Your task to perform on an android device: When is my next meeting? Image 0: 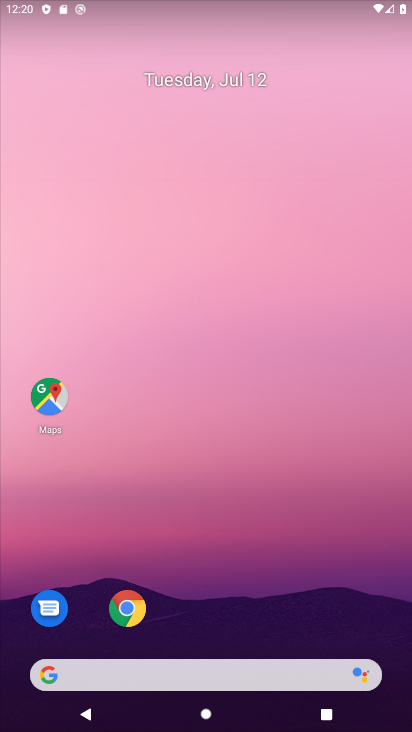
Step 0: drag from (249, 710) to (127, 190)
Your task to perform on an android device: When is my next meeting? Image 1: 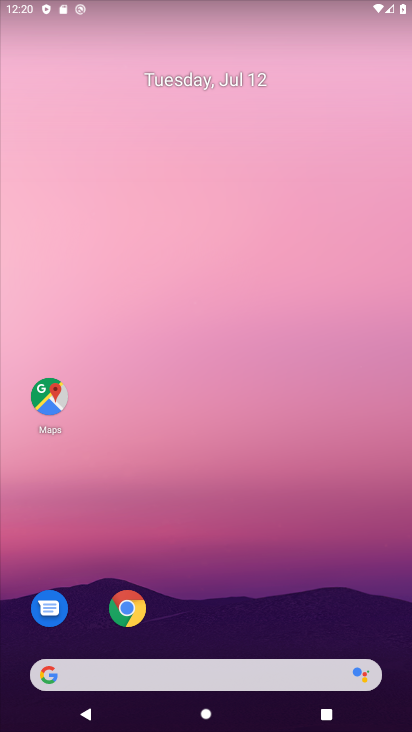
Step 1: drag from (232, 667) to (256, 372)
Your task to perform on an android device: When is my next meeting? Image 2: 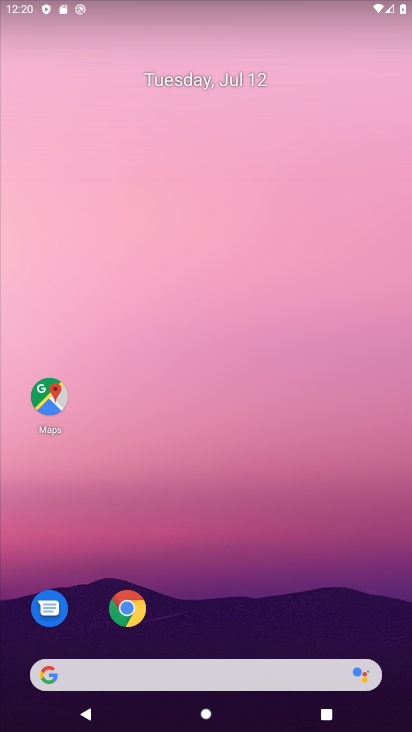
Step 2: drag from (298, 57) to (339, 52)
Your task to perform on an android device: When is my next meeting? Image 3: 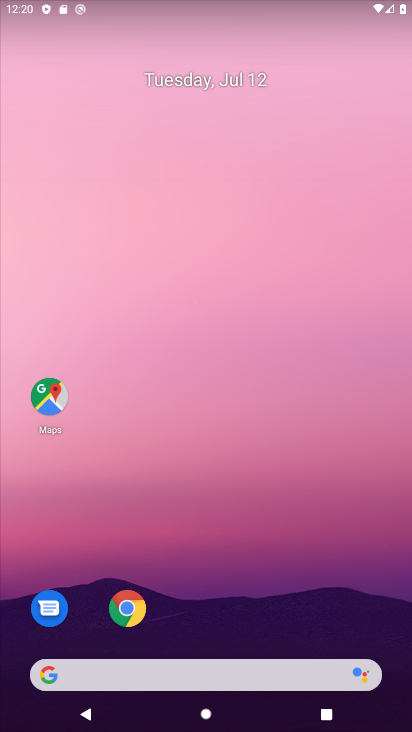
Step 3: drag from (283, 298) to (258, 153)
Your task to perform on an android device: When is my next meeting? Image 4: 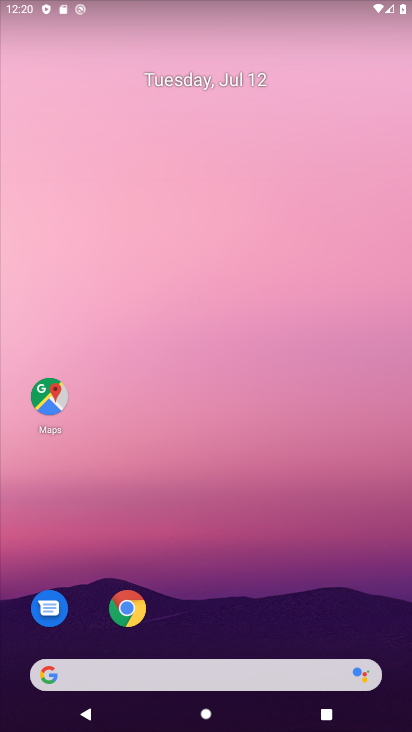
Step 4: drag from (240, 342) to (190, 91)
Your task to perform on an android device: When is my next meeting? Image 5: 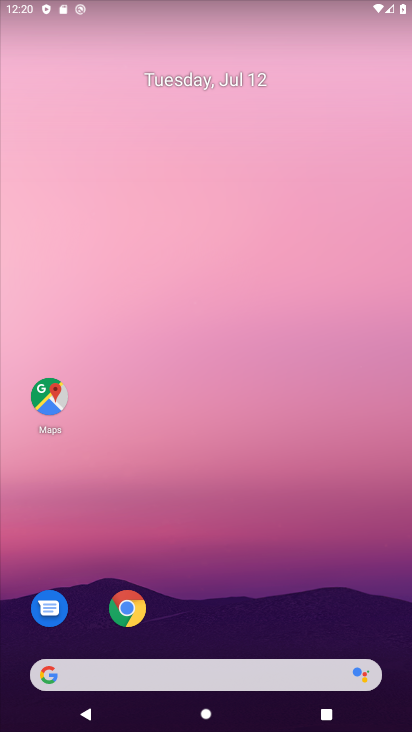
Step 5: drag from (193, 589) to (133, 109)
Your task to perform on an android device: When is my next meeting? Image 6: 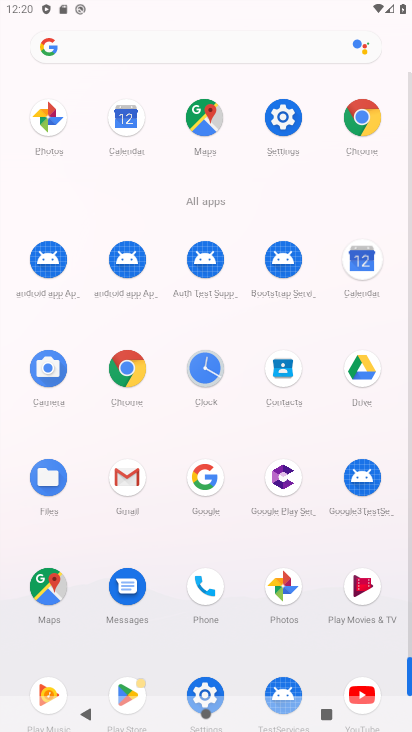
Step 6: click (289, 126)
Your task to perform on an android device: When is my next meeting? Image 7: 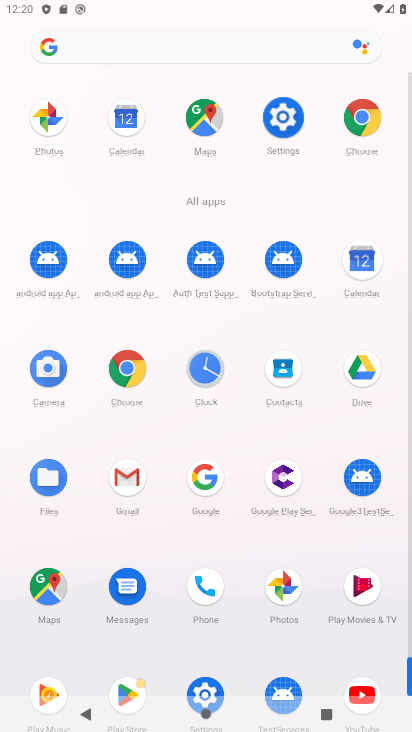
Step 7: click (289, 124)
Your task to perform on an android device: When is my next meeting? Image 8: 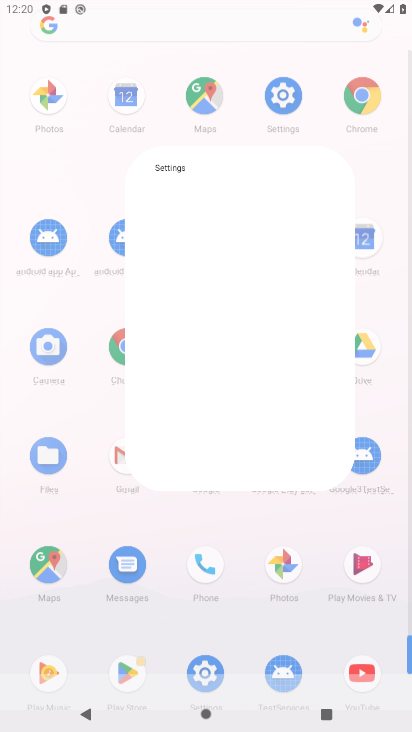
Step 8: click (289, 124)
Your task to perform on an android device: When is my next meeting? Image 9: 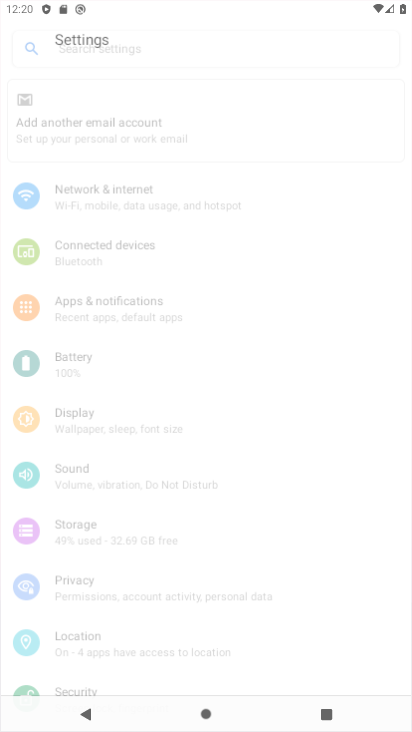
Step 9: click (289, 124)
Your task to perform on an android device: When is my next meeting? Image 10: 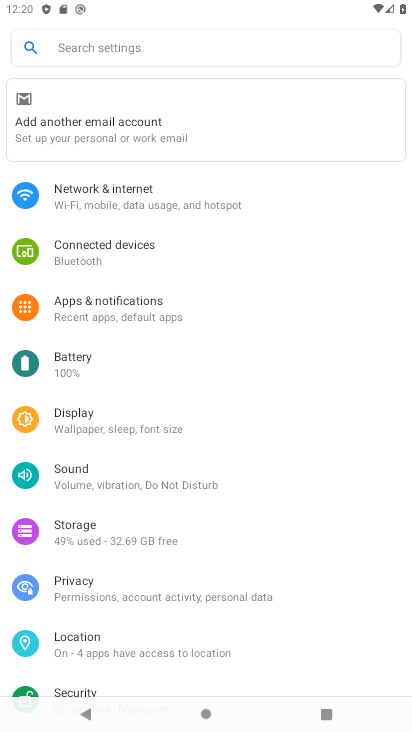
Step 10: press back button
Your task to perform on an android device: When is my next meeting? Image 11: 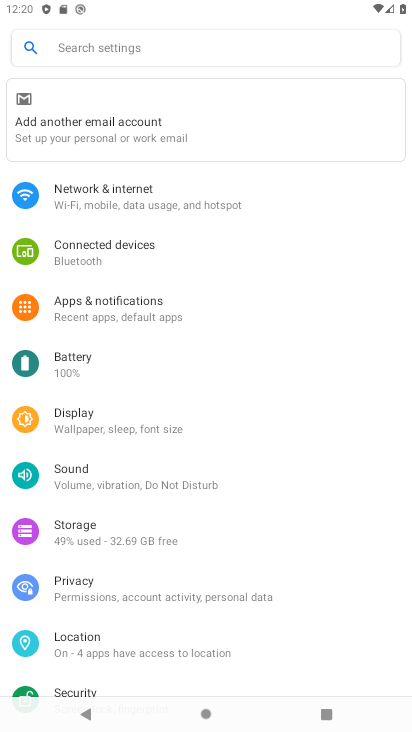
Step 11: press back button
Your task to perform on an android device: When is my next meeting? Image 12: 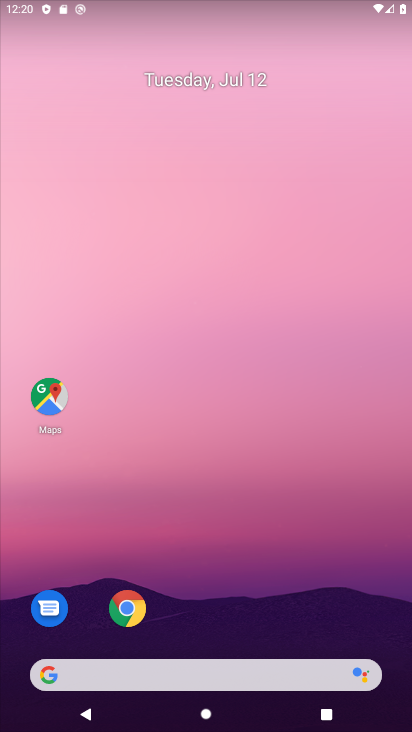
Step 12: drag from (288, 694) to (235, 14)
Your task to perform on an android device: When is my next meeting? Image 13: 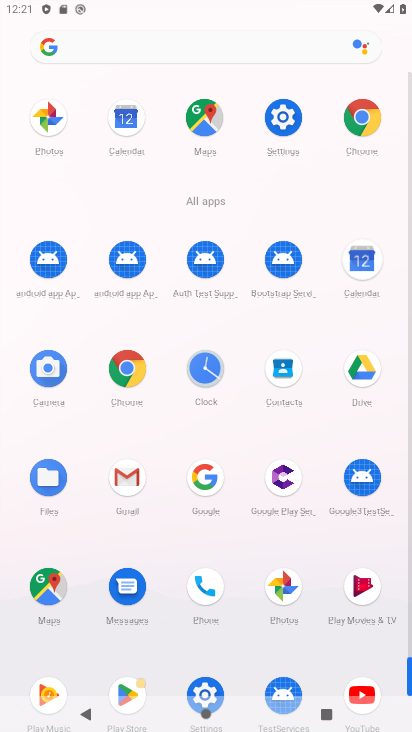
Step 13: click (358, 257)
Your task to perform on an android device: When is my next meeting? Image 14: 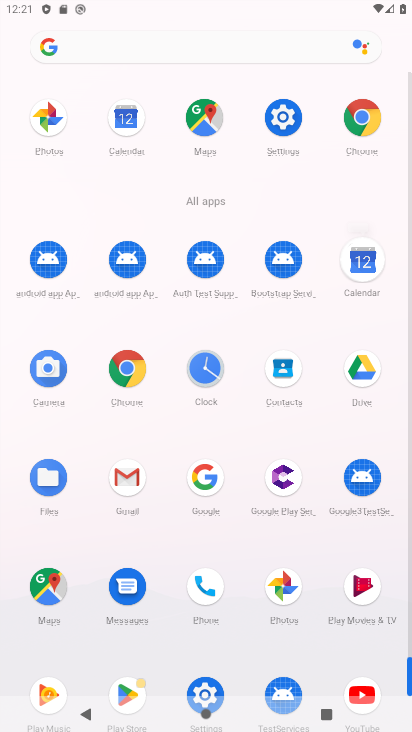
Step 14: click (367, 252)
Your task to perform on an android device: When is my next meeting? Image 15: 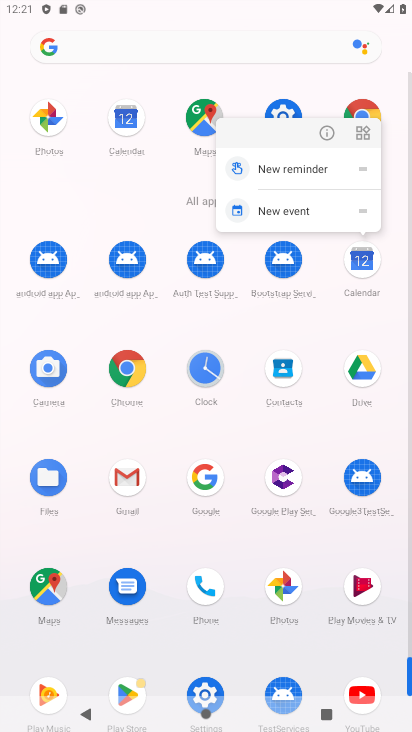
Step 15: click (361, 258)
Your task to perform on an android device: When is my next meeting? Image 16: 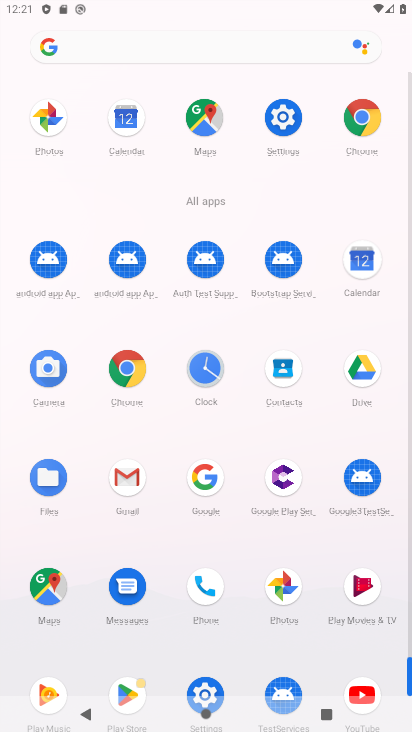
Step 16: click (361, 258)
Your task to perform on an android device: When is my next meeting? Image 17: 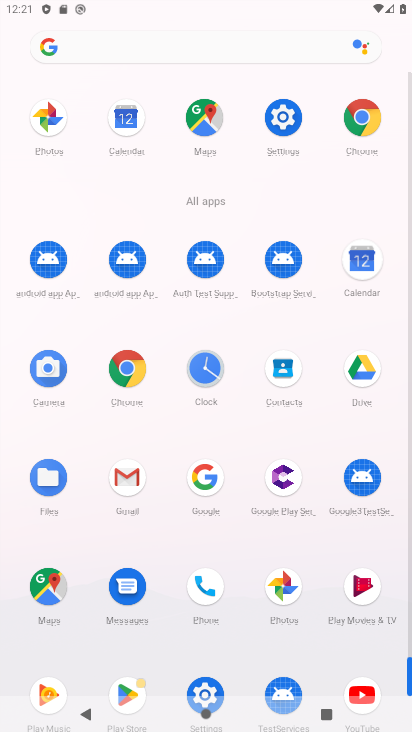
Step 17: click (354, 263)
Your task to perform on an android device: When is my next meeting? Image 18: 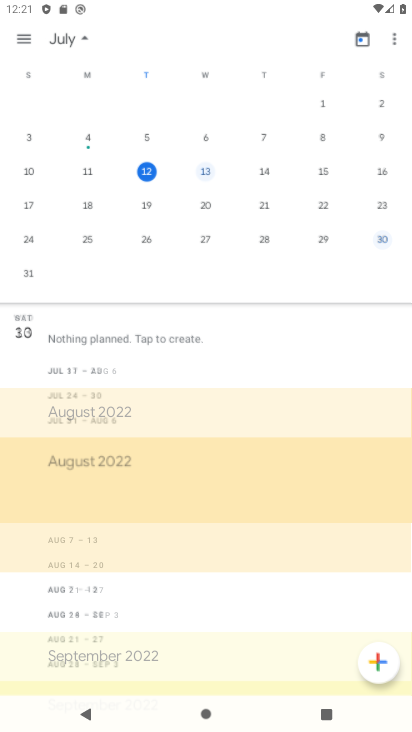
Step 18: click (353, 264)
Your task to perform on an android device: When is my next meeting? Image 19: 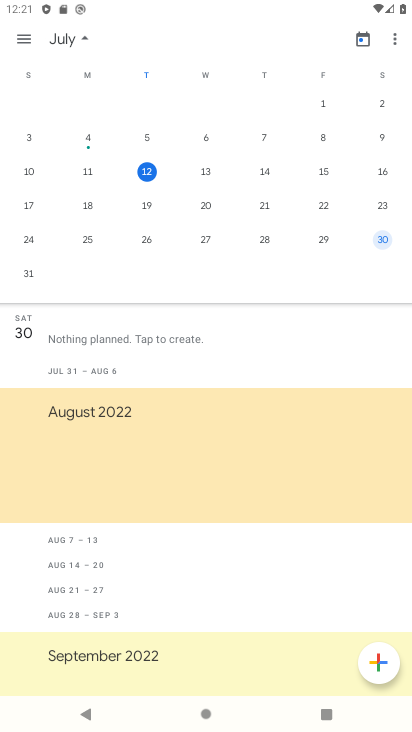
Step 19: task complete